Your task to perform on an android device: Turn on the flashlight Image 0: 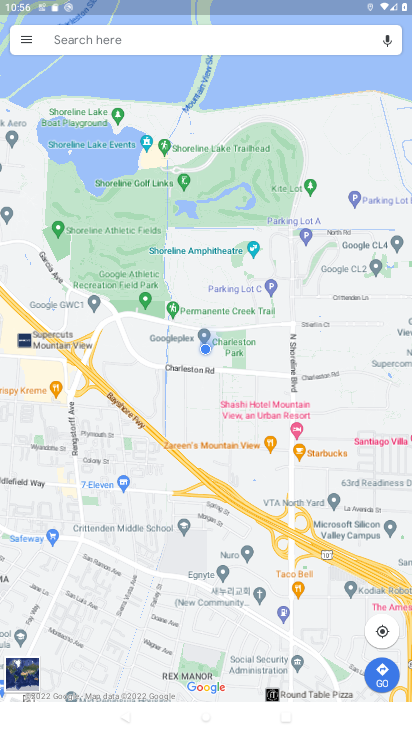
Step 0: press home button
Your task to perform on an android device: Turn on the flashlight Image 1: 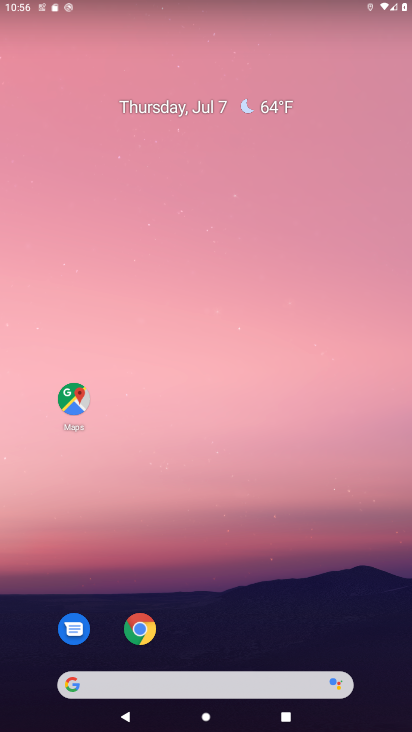
Step 1: drag from (254, 645) to (287, 170)
Your task to perform on an android device: Turn on the flashlight Image 2: 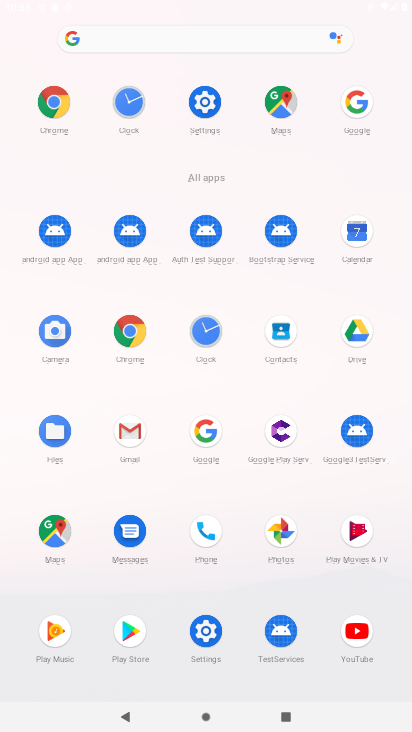
Step 2: click (206, 100)
Your task to perform on an android device: Turn on the flashlight Image 3: 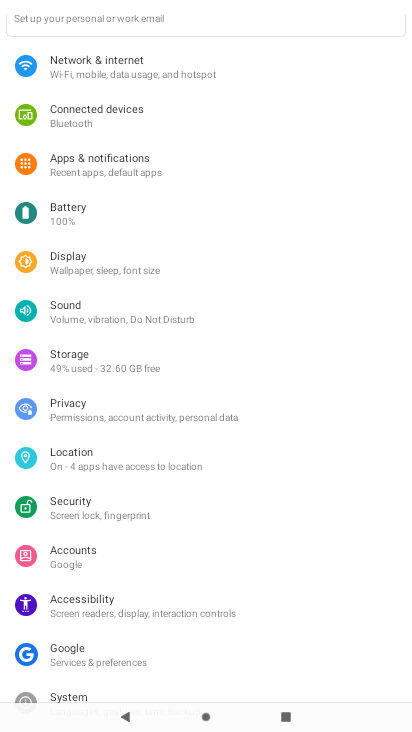
Step 3: click (93, 272)
Your task to perform on an android device: Turn on the flashlight Image 4: 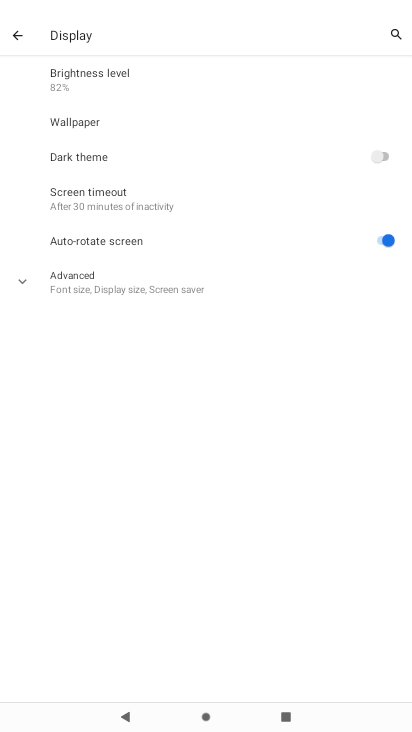
Step 4: click (94, 282)
Your task to perform on an android device: Turn on the flashlight Image 5: 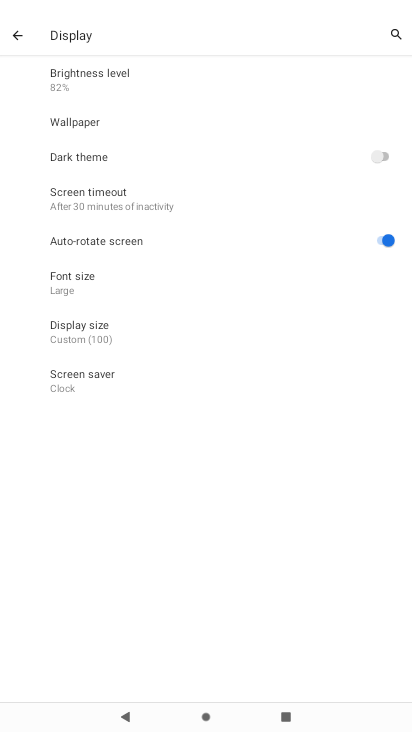
Step 5: task complete